Your task to perform on an android device: What is the recent news? Image 0: 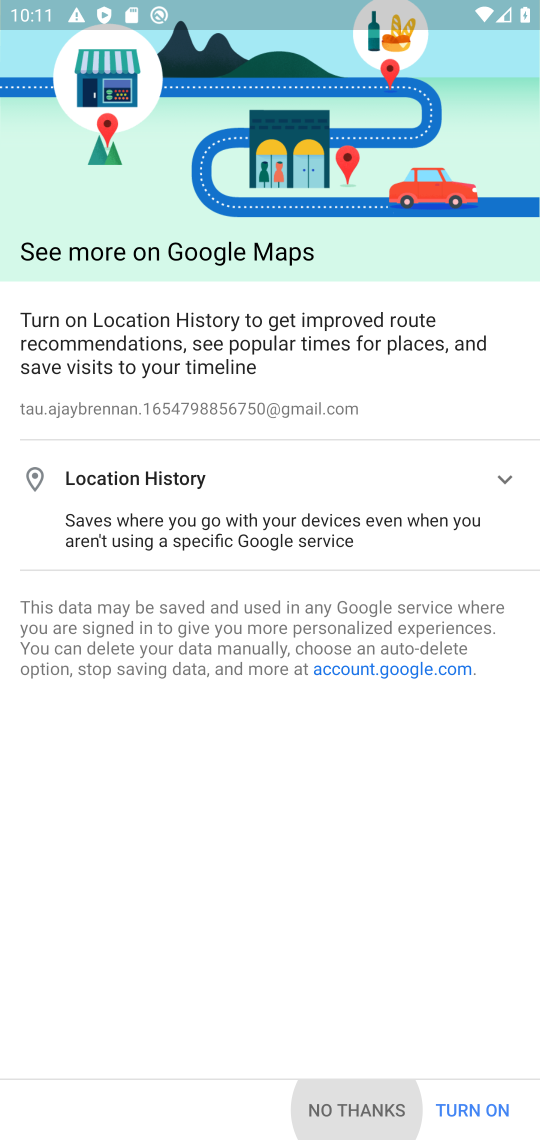
Step 0: press home button
Your task to perform on an android device: What is the recent news? Image 1: 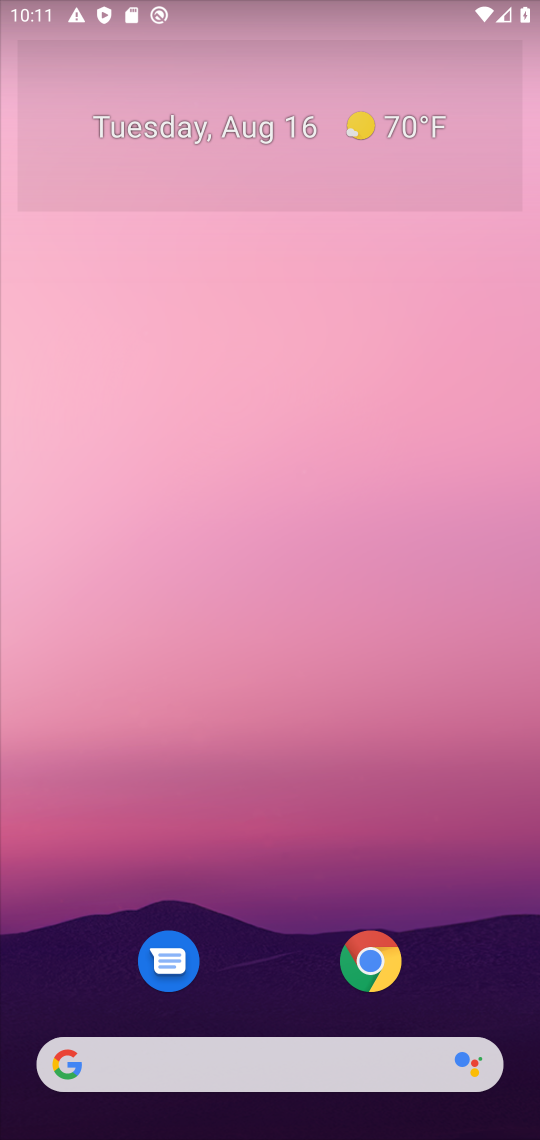
Step 1: click (393, 959)
Your task to perform on an android device: What is the recent news? Image 2: 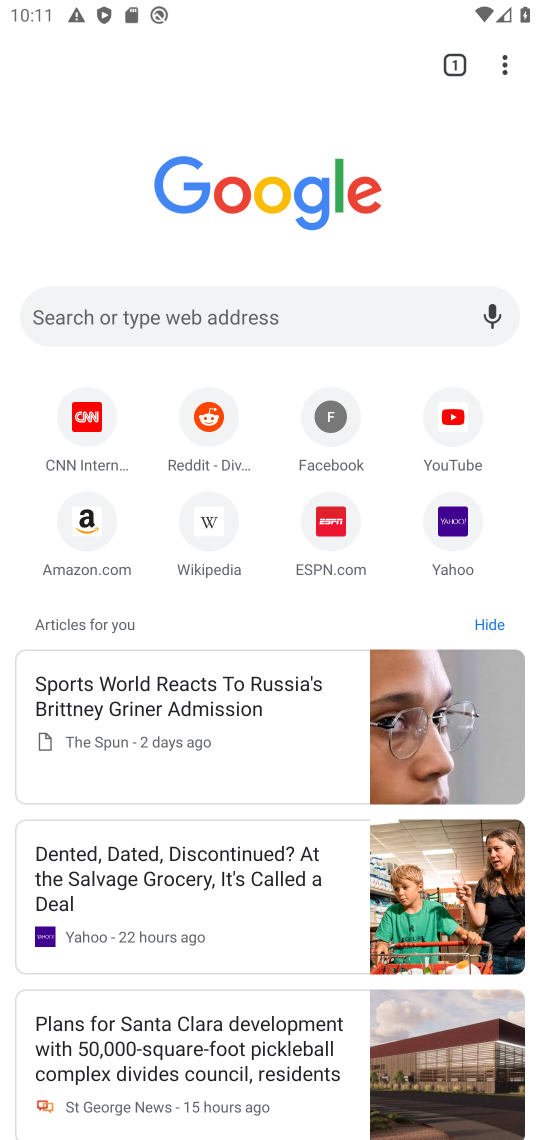
Step 2: click (378, 304)
Your task to perform on an android device: What is the recent news? Image 3: 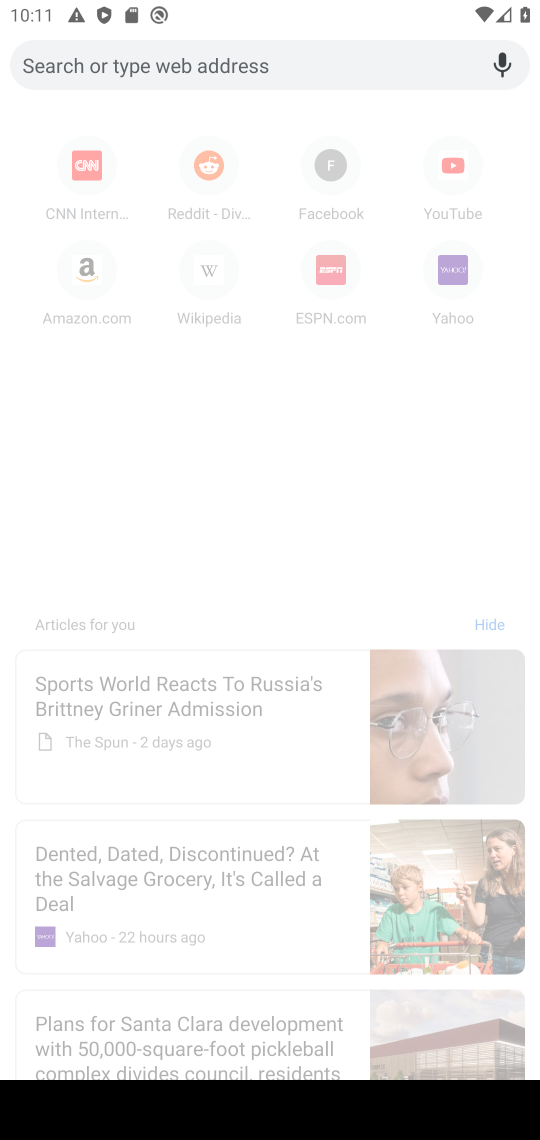
Step 3: type "What is the recent news?"
Your task to perform on an android device: What is the recent news? Image 4: 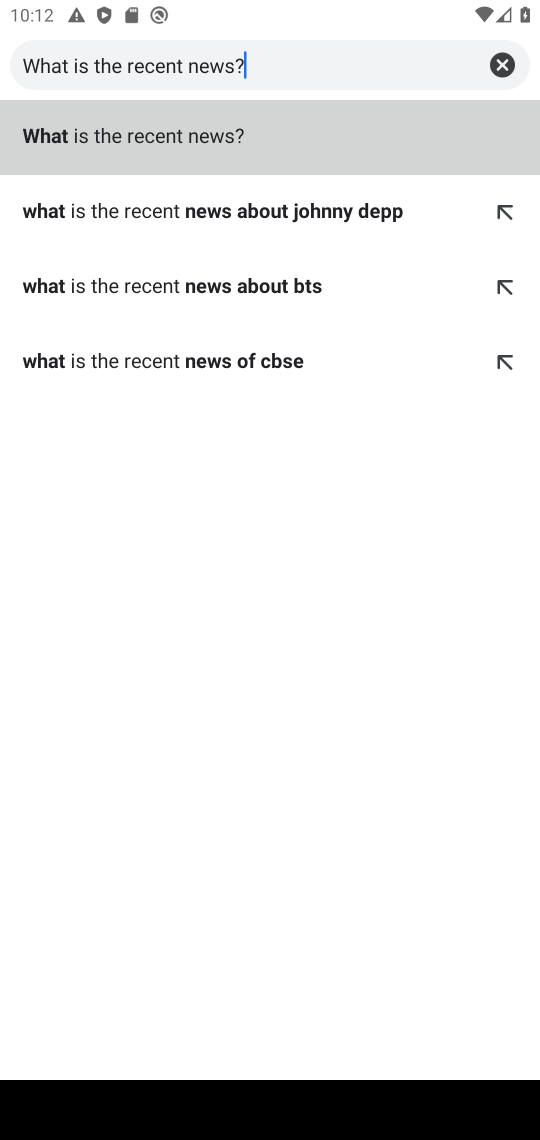
Step 4: press enter
Your task to perform on an android device: What is the recent news? Image 5: 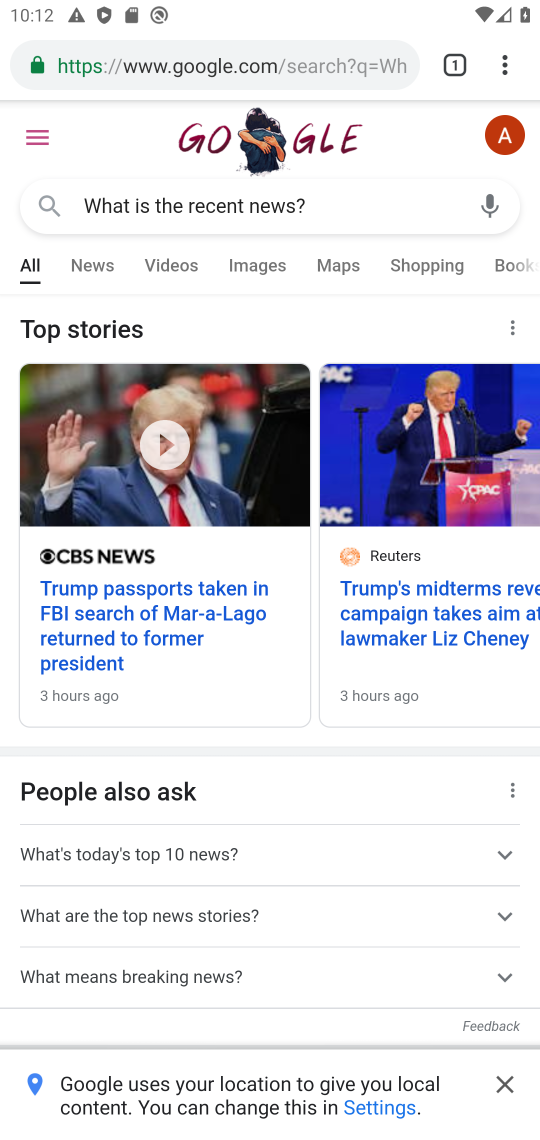
Step 5: task complete